Your task to perform on an android device: change notification settings in the gmail app Image 0: 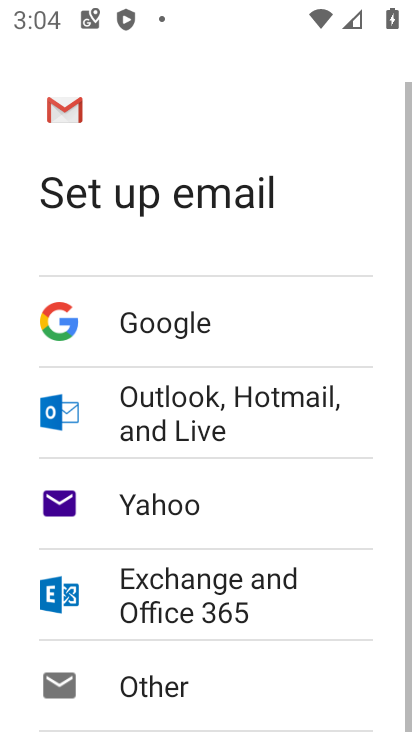
Step 0: press home button
Your task to perform on an android device: change notification settings in the gmail app Image 1: 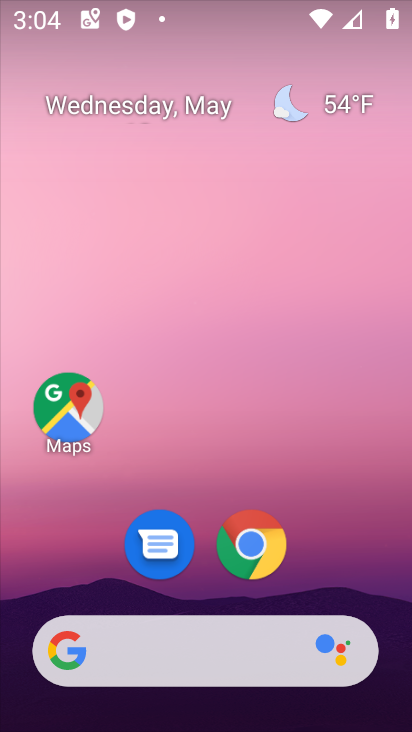
Step 1: drag from (359, 544) to (305, 100)
Your task to perform on an android device: change notification settings in the gmail app Image 2: 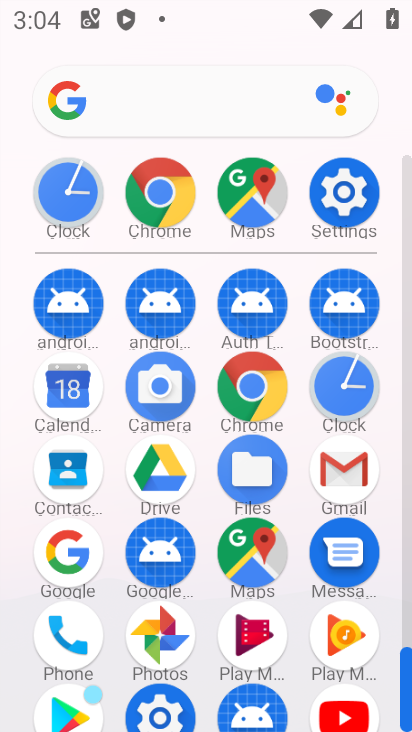
Step 2: click (339, 462)
Your task to perform on an android device: change notification settings in the gmail app Image 3: 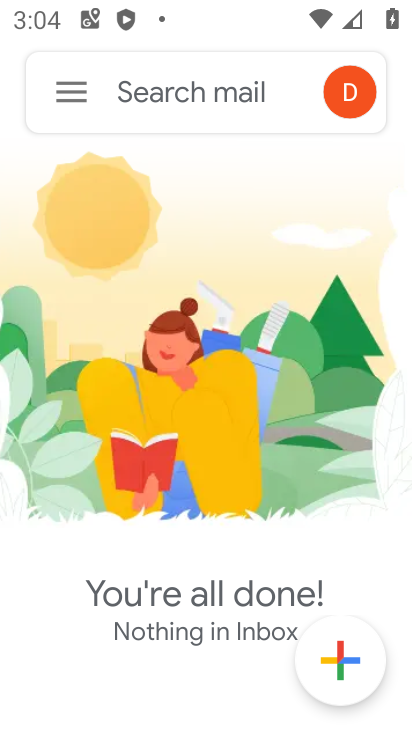
Step 3: click (66, 99)
Your task to perform on an android device: change notification settings in the gmail app Image 4: 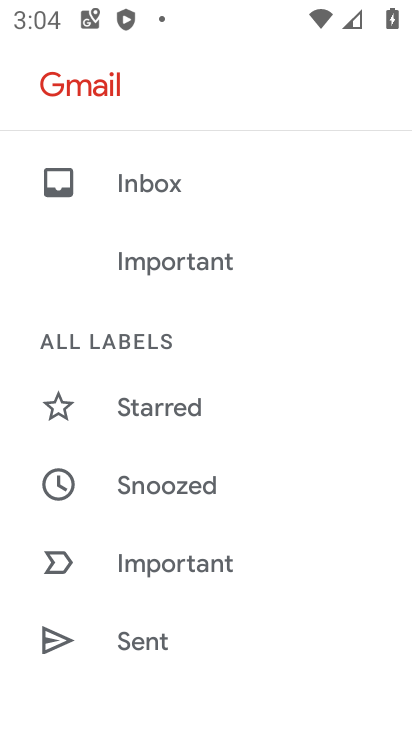
Step 4: drag from (157, 645) to (129, 224)
Your task to perform on an android device: change notification settings in the gmail app Image 5: 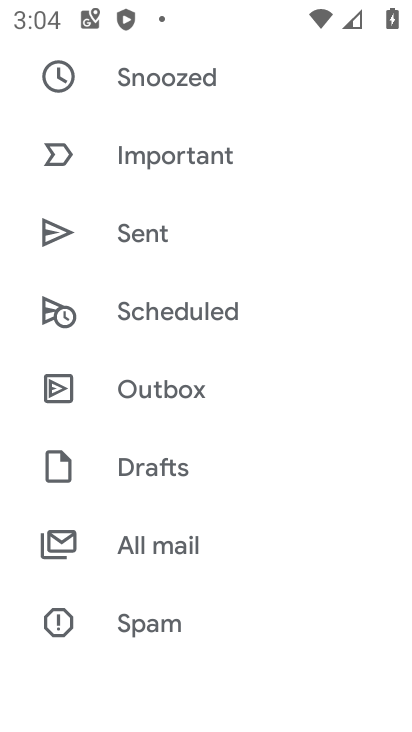
Step 5: drag from (216, 612) to (170, 147)
Your task to perform on an android device: change notification settings in the gmail app Image 6: 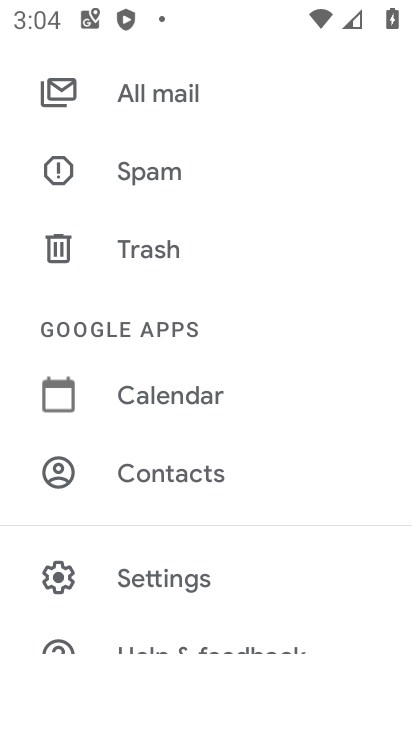
Step 6: click (197, 579)
Your task to perform on an android device: change notification settings in the gmail app Image 7: 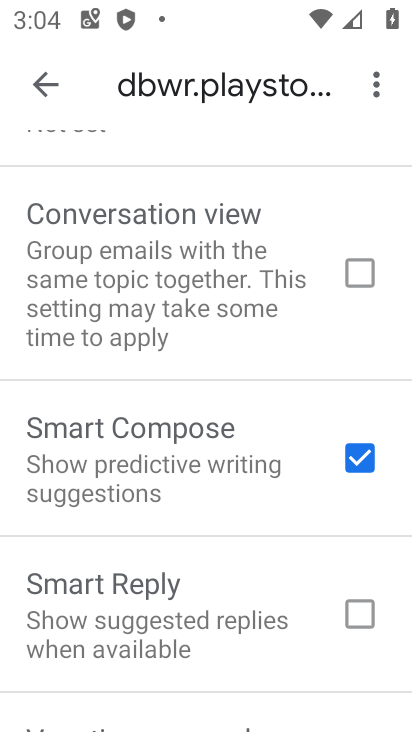
Step 7: task complete